Your task to perform on an android device: Do I have any events today? Image 0: 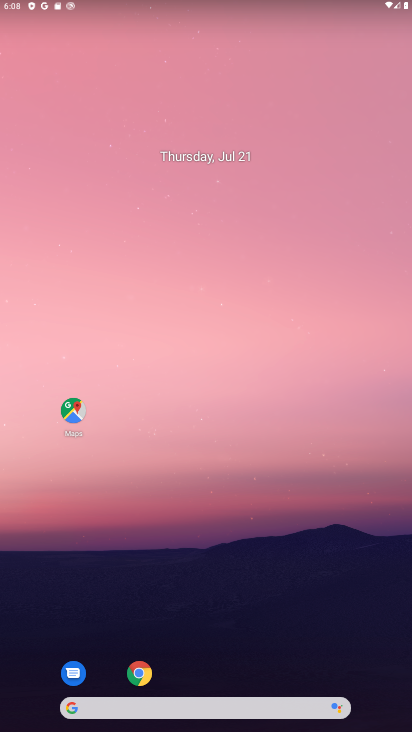
Step 0: drag from (195, 648) to (237, 316)
Your task to perform on an android device: Do I have any events today? Image 1: 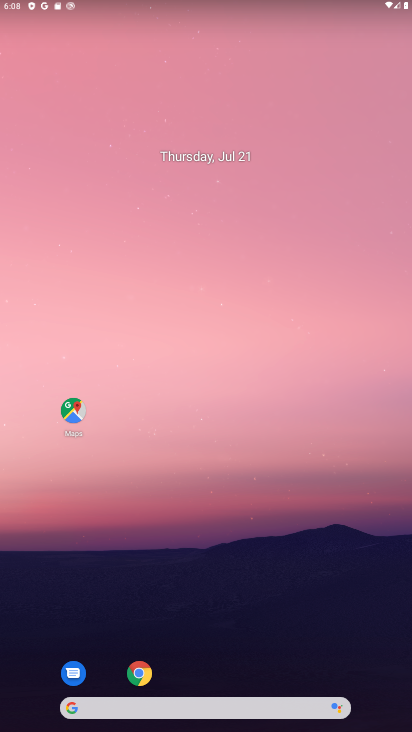
Step 1: drag from (160, 449) to (256, 8)
Your task to perform on an android device: Do I have any events today? Image 2: 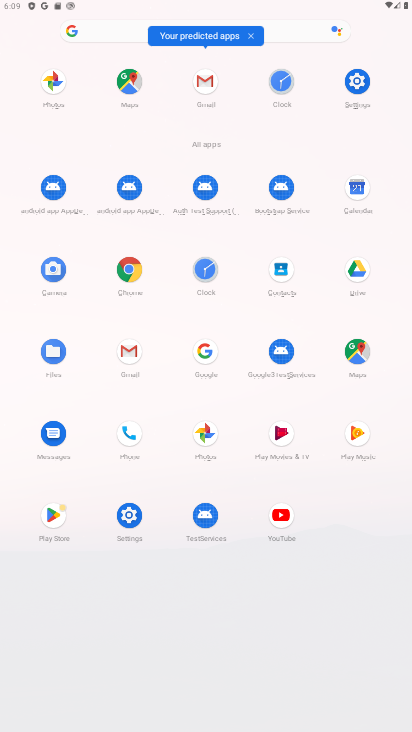
Step 2: click (356, 199)
Your task to perform on an android device: Do I have any events today? Image 3: 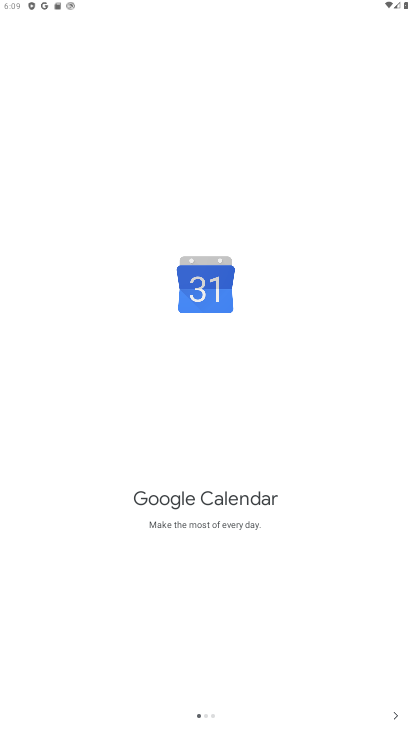
Step 3: click (395, 714)
Your task to perform on an android device: Do I have any events today? Image 4: 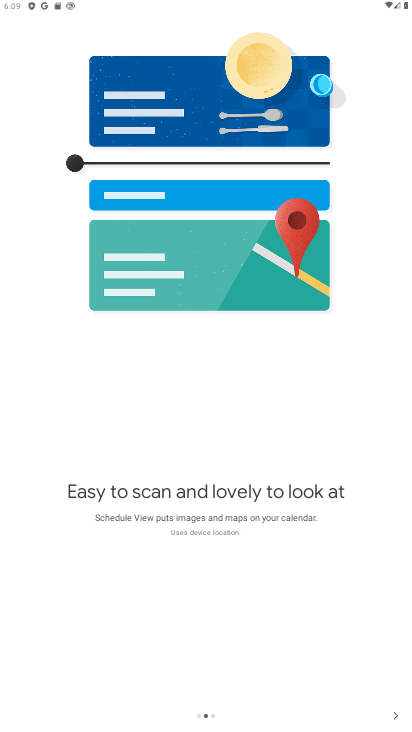
Step 4: click (395, 714)
Your task to perform on an android device: Do I have any events today? Image 5: 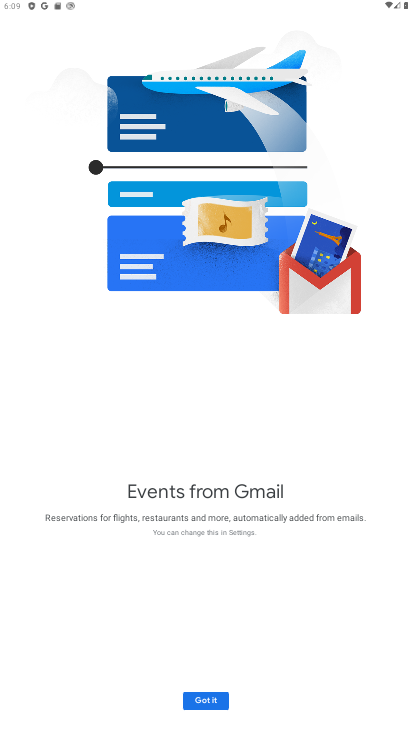
Step 5: click (192, 701)
Your task to perform on an android device: Do I have any events today? Image 6: 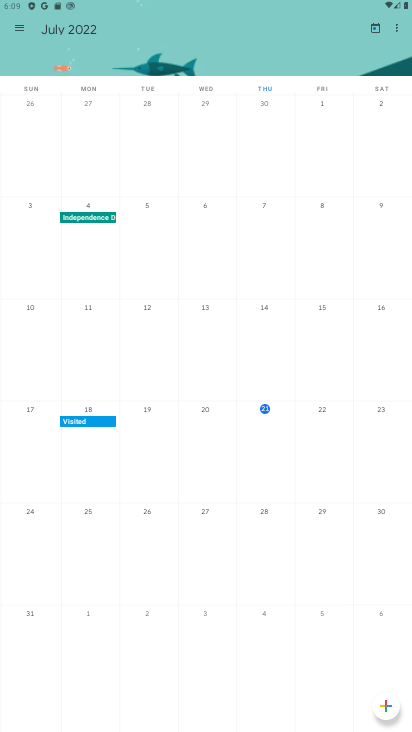
Step 6: click (263, 411)
Your task to perform on an android device: Do I have any events today? Image 7: 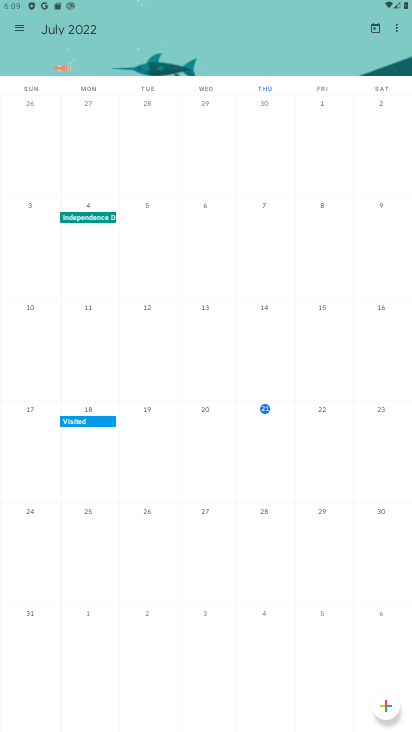
Step 7: click (263, 411)
Your task to perform on an android device: Do I have any events today? Image 8: 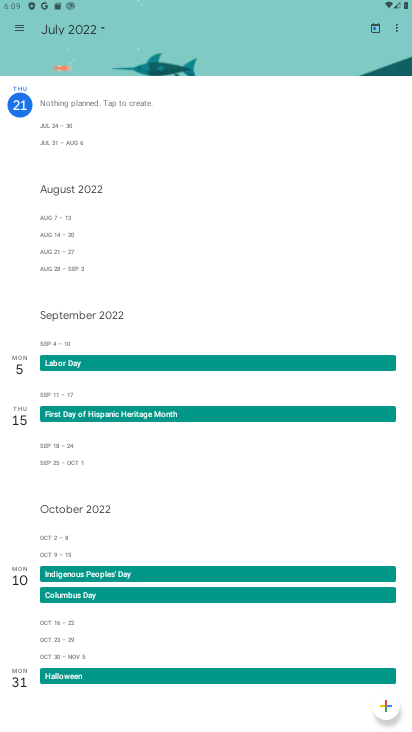
Step 8: task complete